Your task to perform on an android device: Do I have any events today? Image 0: 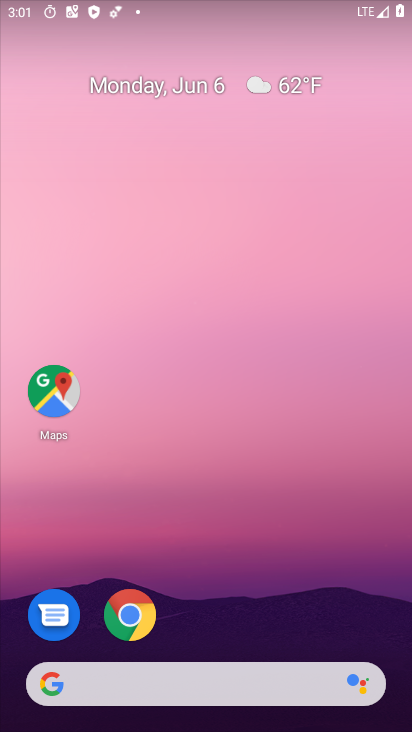
Step 0: drag from (310, 593) to (311, 6)
Your task to perform on an android device: Do I have any events today? Image 1: 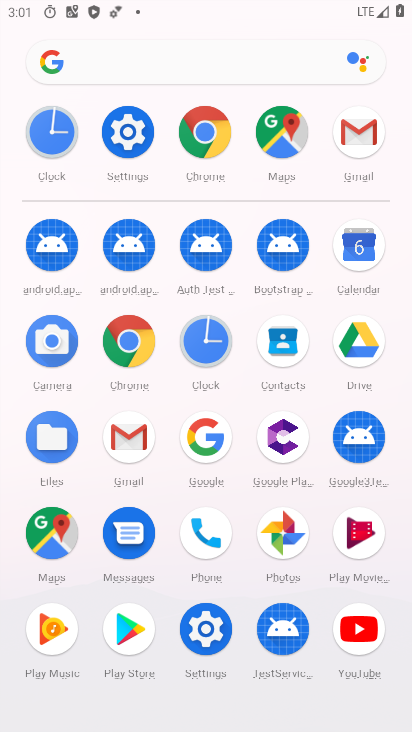
Step 1: click (378, 251)
Your task to perform on an android device: Do I have any events today? Image 2: 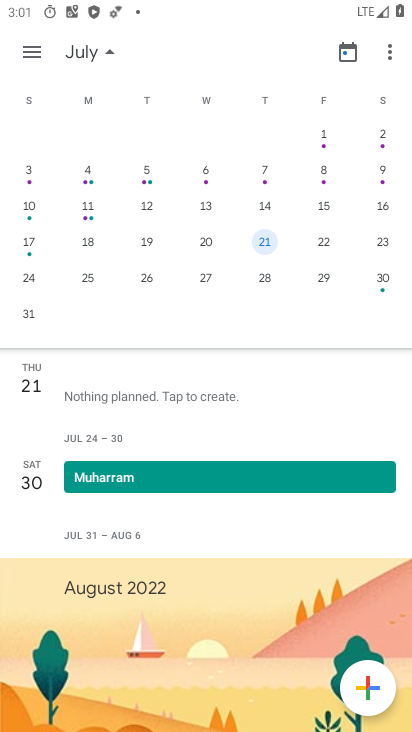
Step 2: task complete